Your task to perform on an android device: Open settings on Google Maps Image 0: 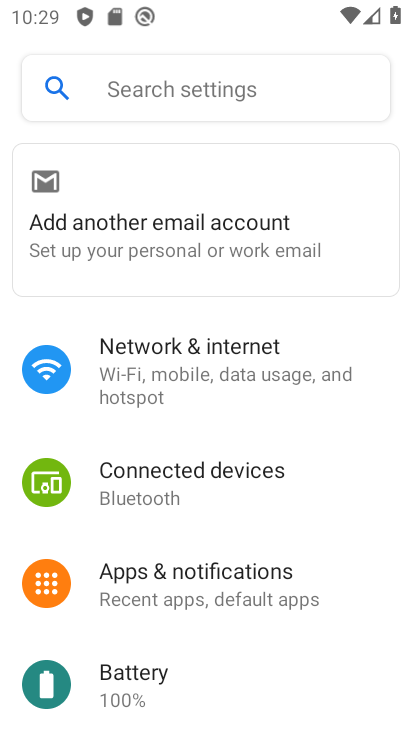
Step 0: press home button
Your task to perform on an android device: Open settings on Google Maps Image 1: 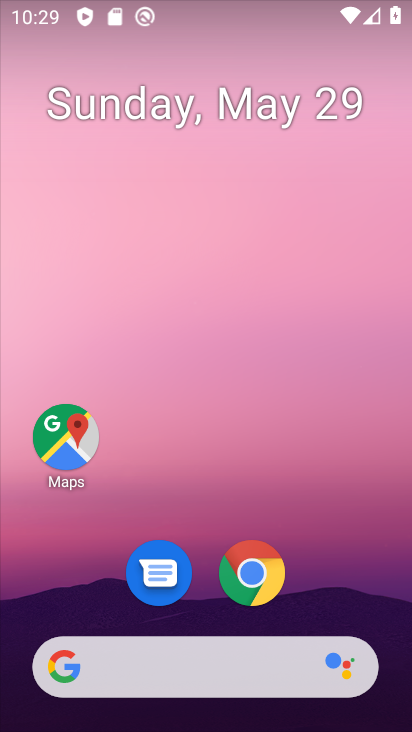
Step 1: click (69, 438)
Your task to perform on an android device: Open settings on Google Maps Image 2: 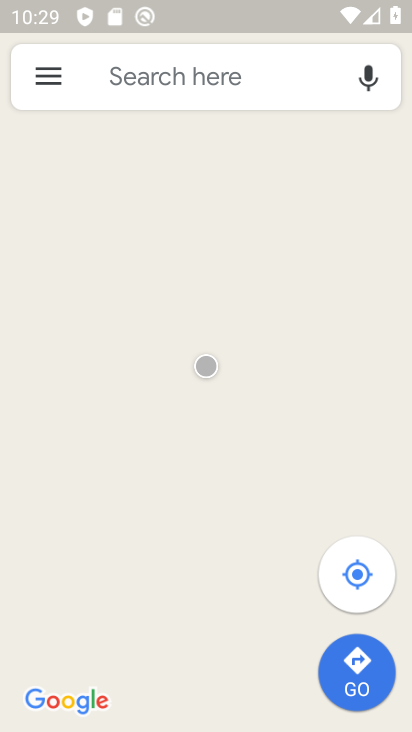
Step 2: click (45, 83)
Your task to perform on an android device: Open settings on Google Maps Image 3: 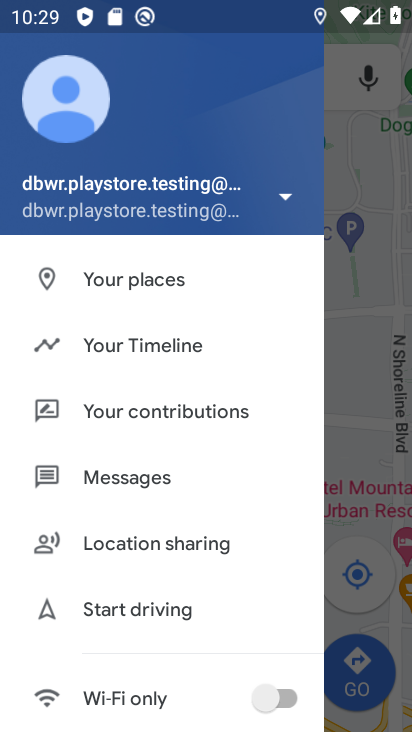
Step 3: drag from (260, 630) to (347, 0)
Your task to perform on an android device: Open settings on Google Maps Image 4: 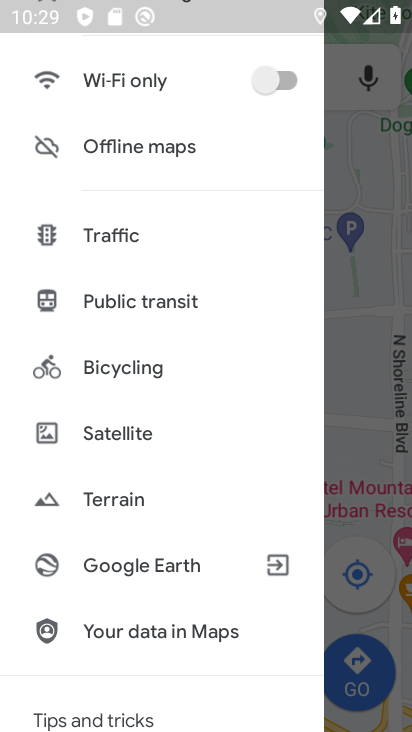
Step 4: drag from (277, 491) to (295, 261)
Your task to perform on an android device: Open settings on Google Maps Image 5: 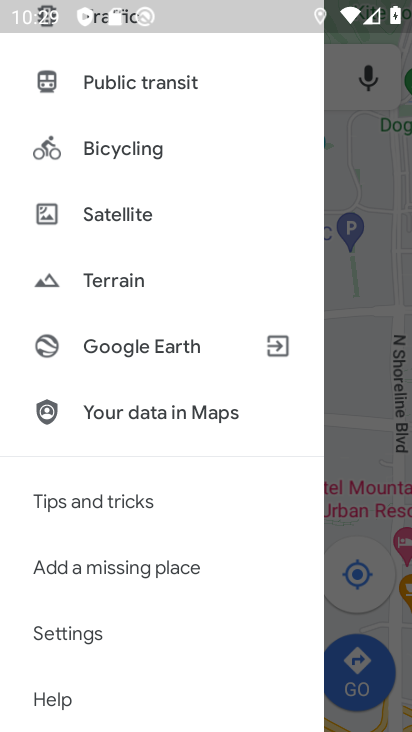
Step 5: click (80, 634)
Your task to perform on an android device: Open settings on Google Maps Image 6: 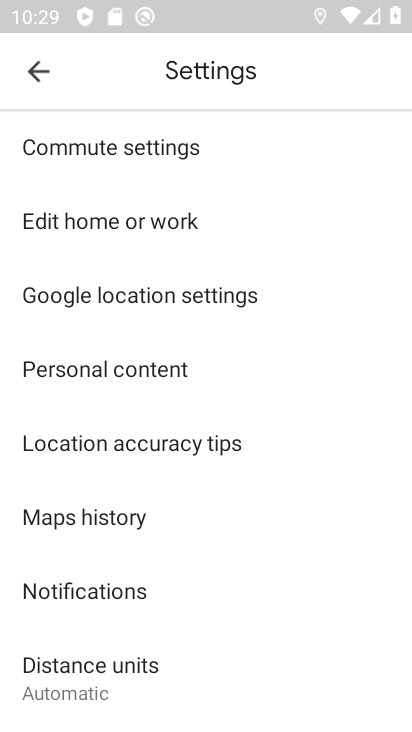
Step 6: task complete